Your task to perform on an android device: Is it going to rain today? Image 0: 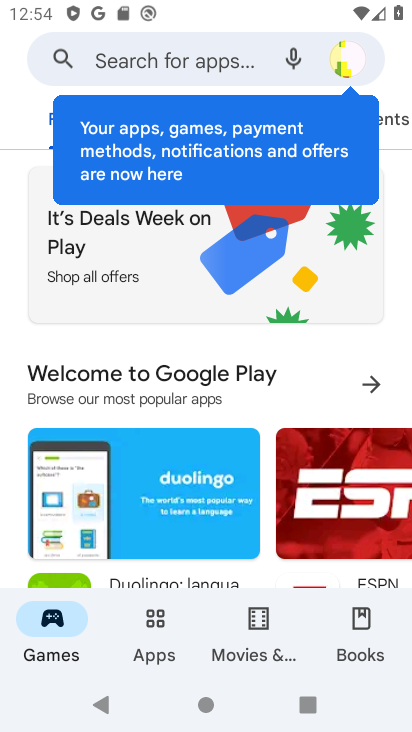
Step 0: press back button
Your task to perform on an android device: Is it going to rain today? Image 1: 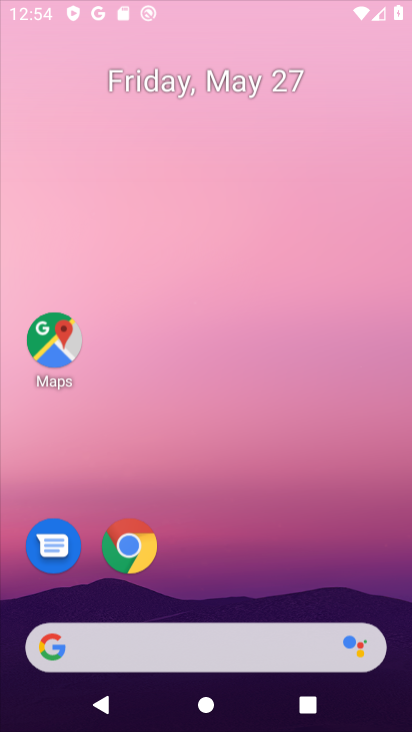
Step 1: task complete